Your task to perform on an android device: see sites visited before in the chrome app Image 0: 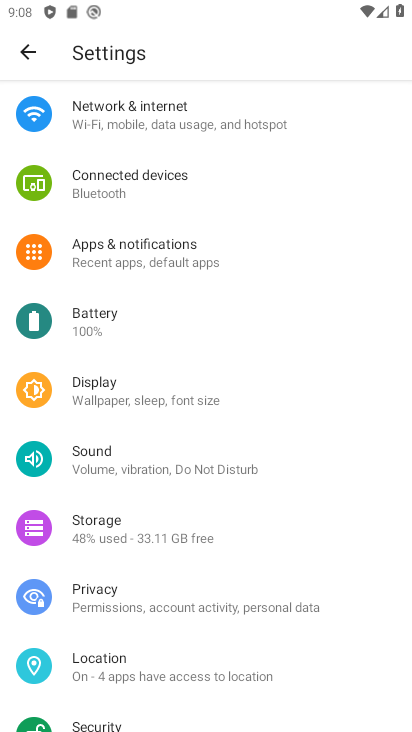
Step 0: press home button
Your task to perform on an android device: see sites visited before in the chrome app Image 1: 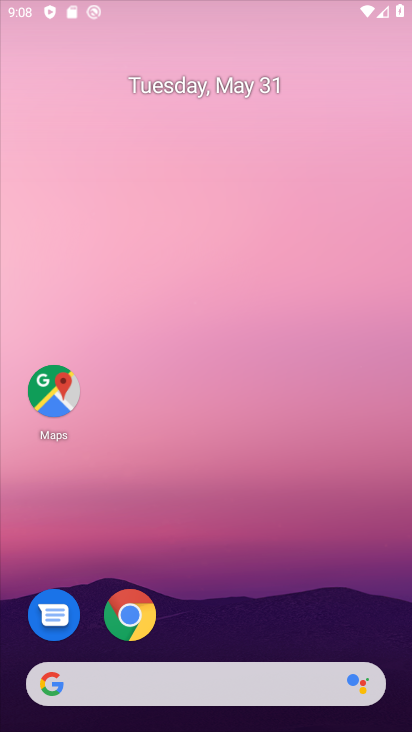
Step 1: drag from (274, 478) to (210, 128)
Your task to perform on an android device: see sites visited before in the chrome app Image 2: 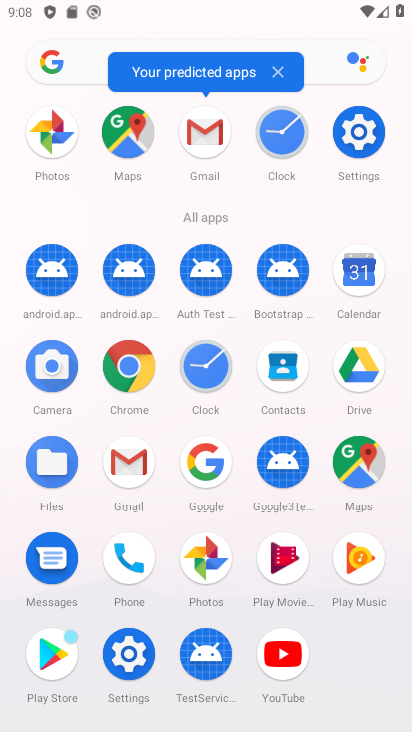
Step 2: click (119, 375)
Your task to perform on an android device: see sites visited before in the chrome app Image 3: 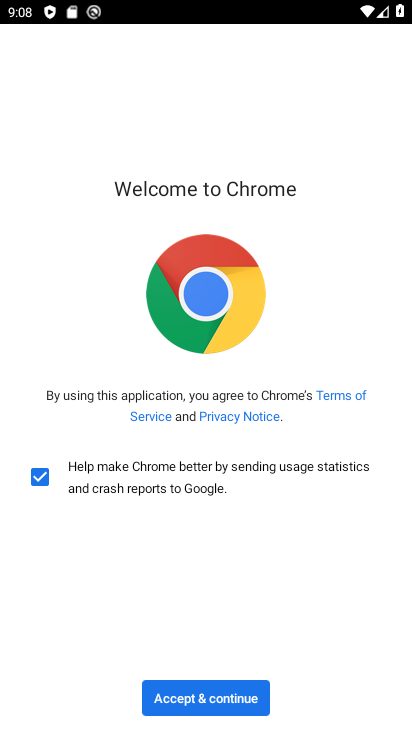
Step 3: click (239, 698)
Your task to perform on an android device: see sites visited before in the chrome app Image 4: 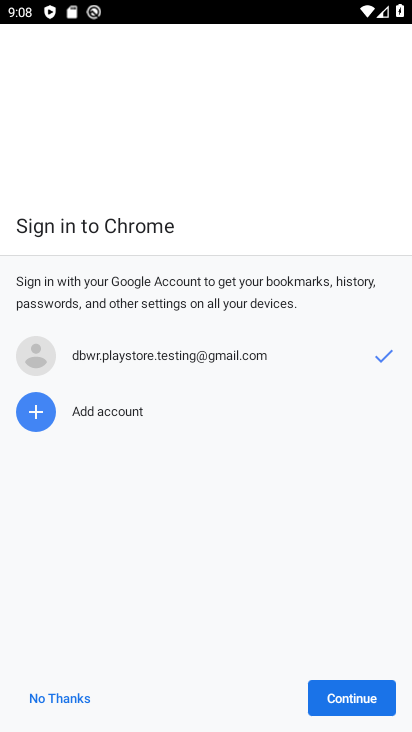
Step 4: click (63, 697)
Your task to perform on an android device: see sites visited before in the chrome app Image 5: 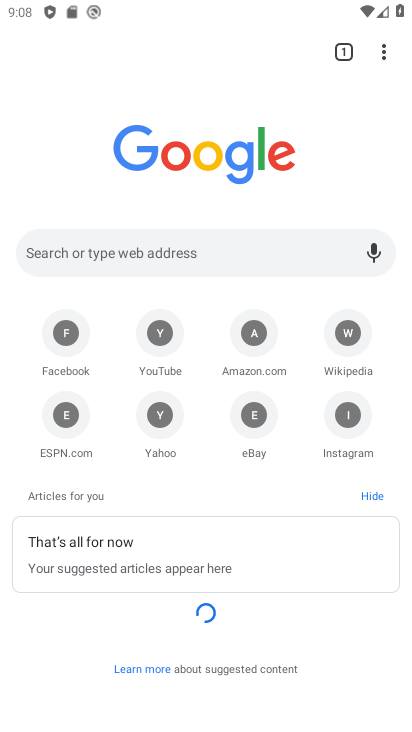
Step 5: task complete